Your task to perform on an android device: change keyboard looks Image 0: 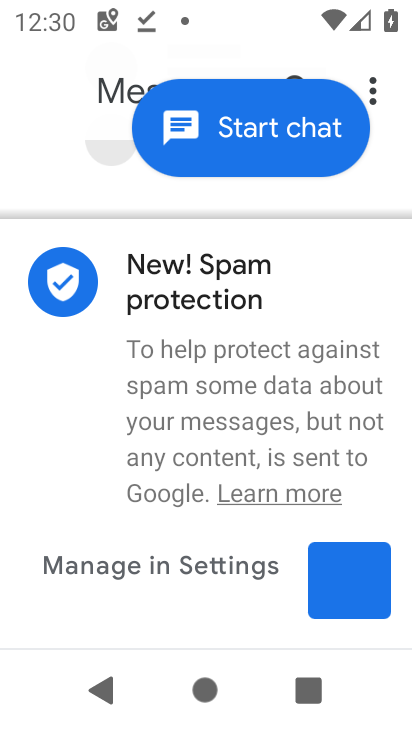
Step 0: press home button
Your task to perform on an android device: change keyboard looks Image 1: 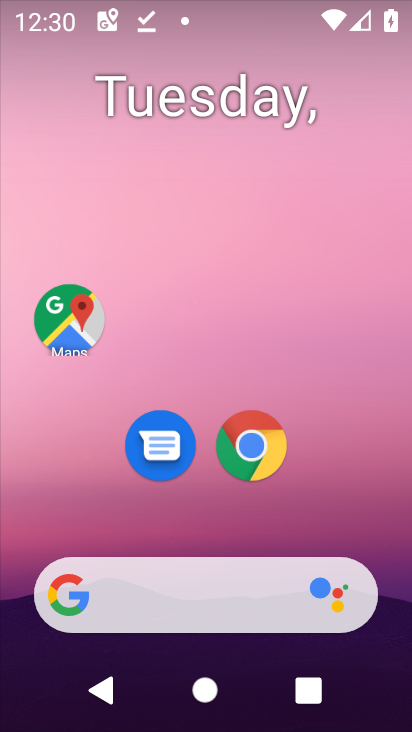
Step 1: drag from (346, 490) to (267, 71)
Your task to perform on an android device: change keyboard looks Image 2: 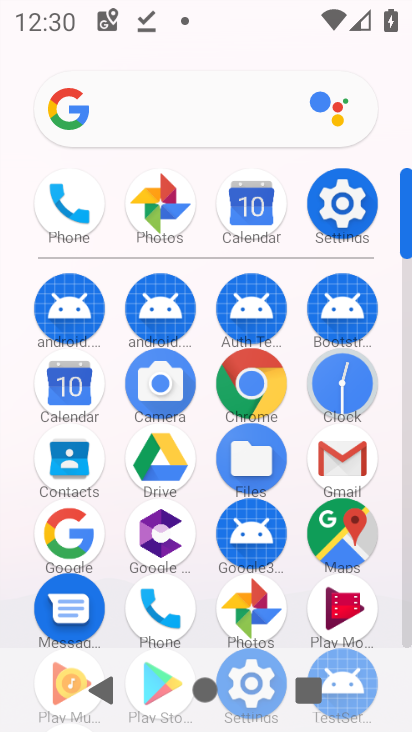
Step 2: click (338, 205)
Your task to perform on an android device: change keyboard looks Image 3: 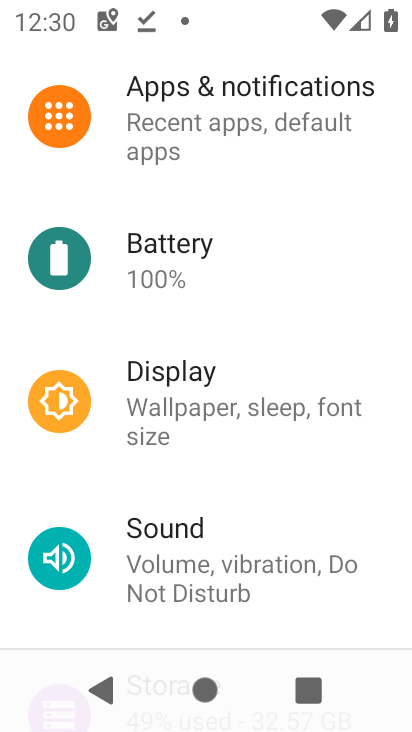
Step 3: drag from (232, 480) to (214, 80)
Your task to perform on an android device: change keyboard looks Image 4: 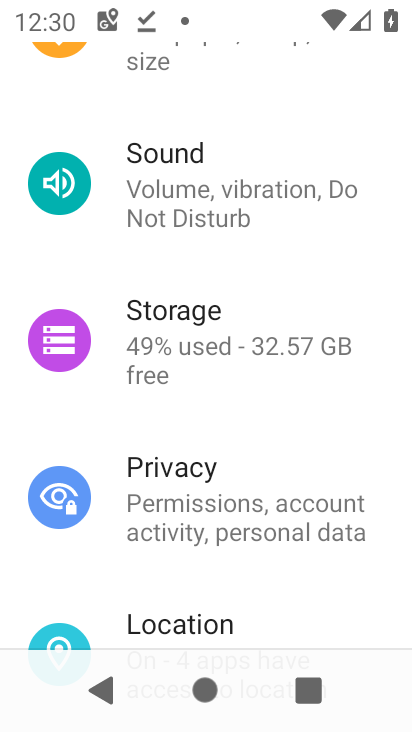
Step 4: drag from (266, 586) to (252, 116)
Your task to perform on an android device: change keyboard looks Image 5: 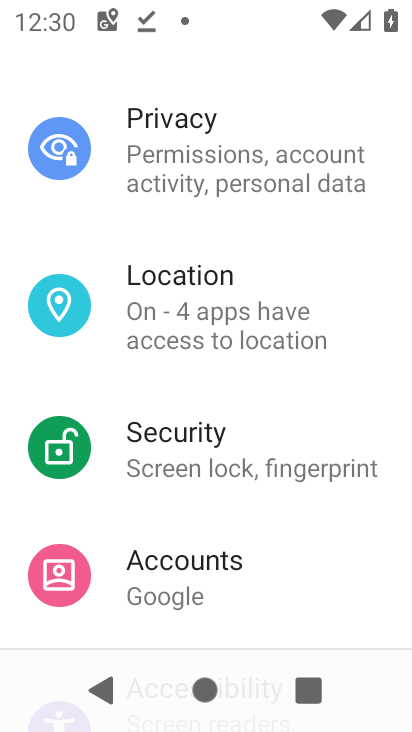
Step 5: drag from (270, 519) to (266, 189)
Your task to perform on an android device: change keyboard looks Image 6: 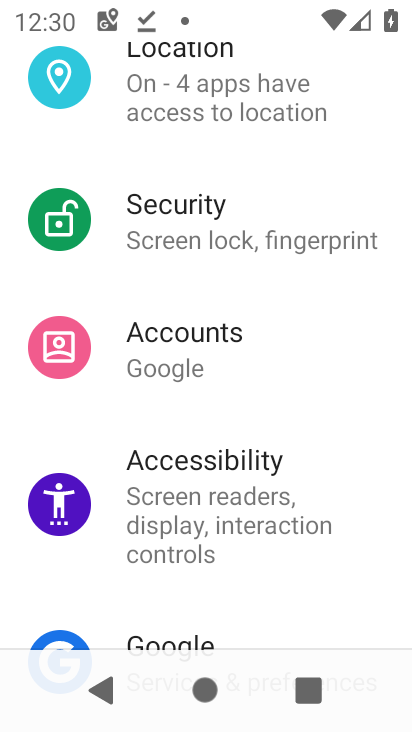
Step 6: drag from (248, 589) to (202, 116)
Your task to perform on an android device: change keyboard looks Image 7: 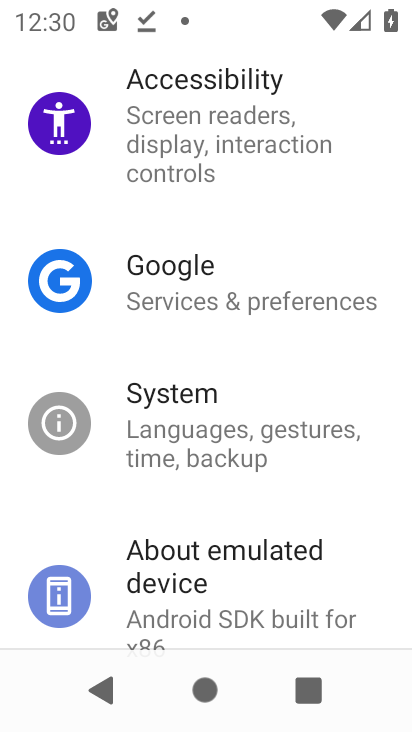
Step 7: click (174, 400)
Your task to perform on an android device: change keyboard looks Image 8: 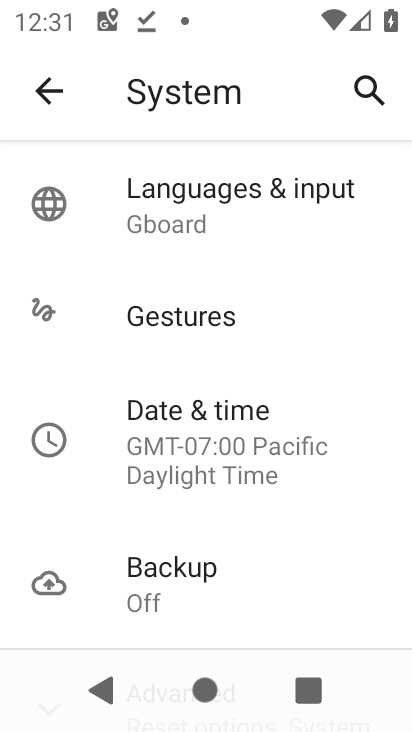
Step 8: click (172, 189)
Your task to perform on an android device: change keyboard looks Image 9: 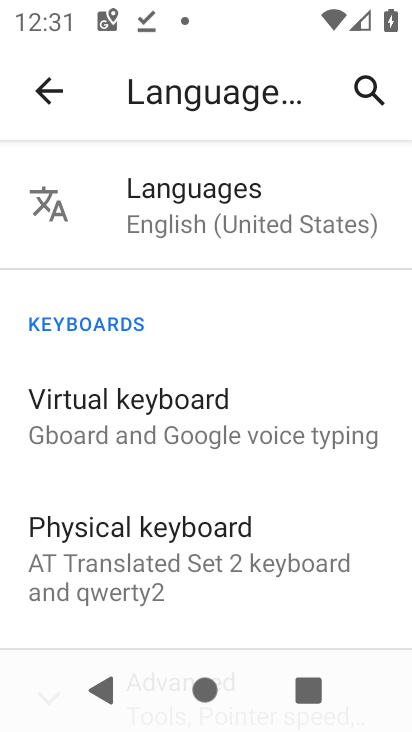
Step 9: click (147, 402)
Your task to perform on an android device: change keyboard looks Image 10: 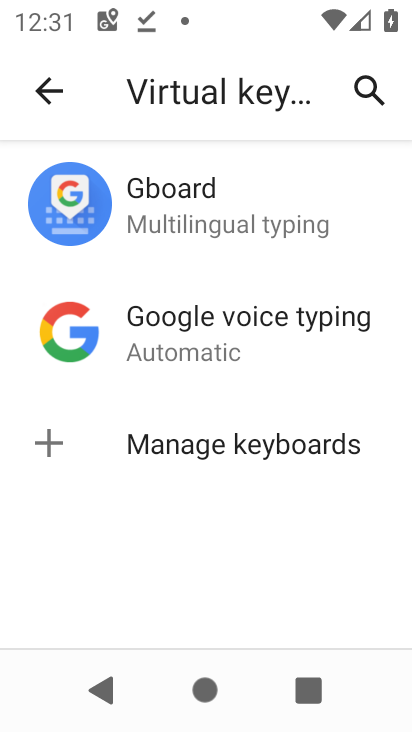
Step 10: click (173, 195)
Your task to perform on an android device: change keyboard looks Image 11: 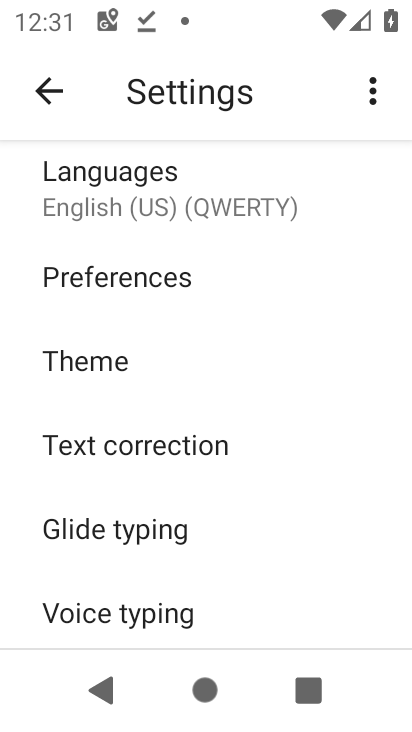
Step 11: click (93, 365)
Your task to perform on an android device: change keyboard looks Image 12: 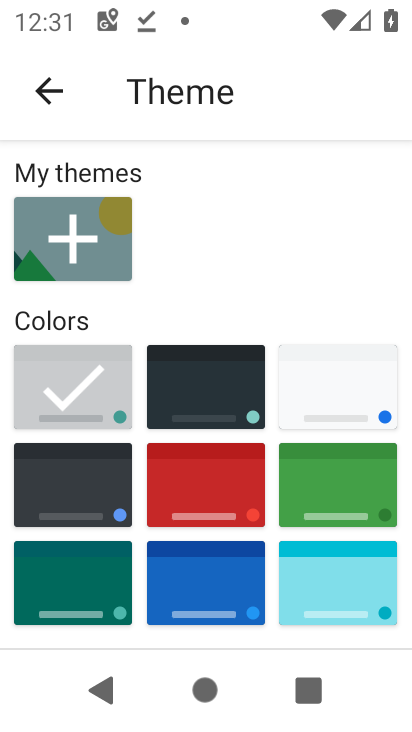
Step 12: click (195, 384)
Your task to perform on an android device: change keyboard looks Image 13: 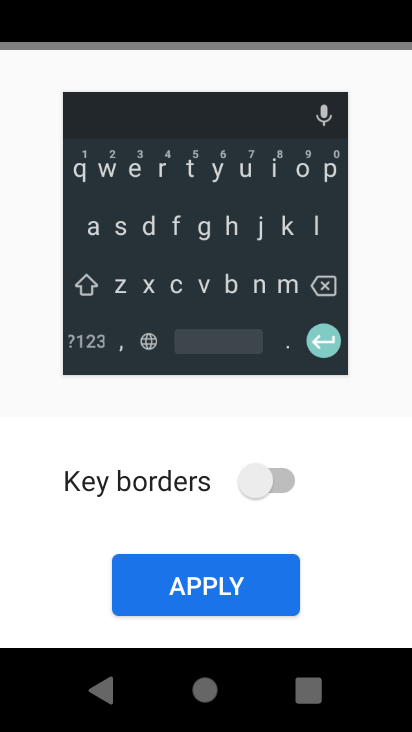
Step 13: click (203, 587)
Your task to perform on an android device: change keyboard looks Image 14: 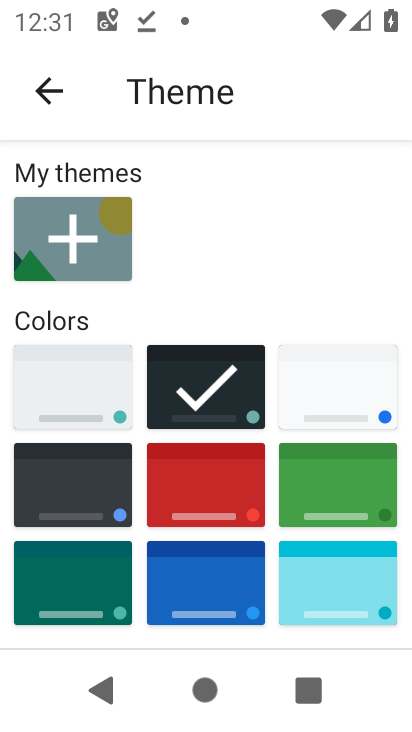
Step 14: task complete